Your task to perform on an android device: search for starred emails in the gmail app Image 0: 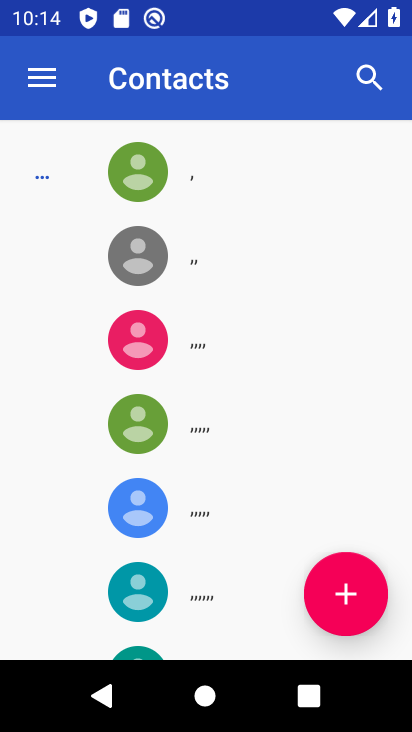
Step 0: press home button
Your task to perform on an android device: search for starred emails in the gmail app Image 1: 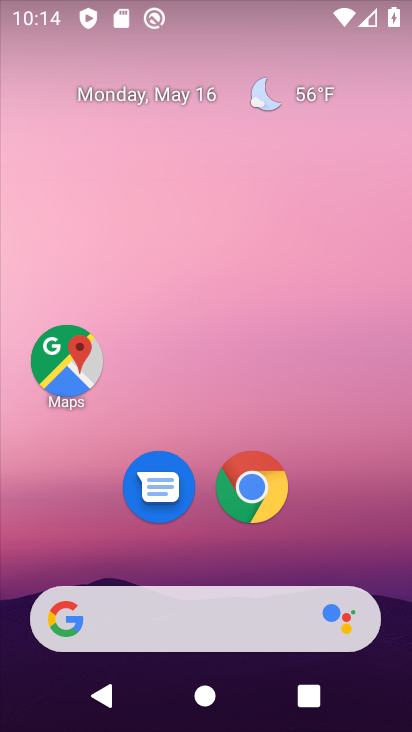
Step 1: drag from (304, 324) to (317, 135)
Your task to perform on an android device: search for starred emails in the gmail app Image 2: 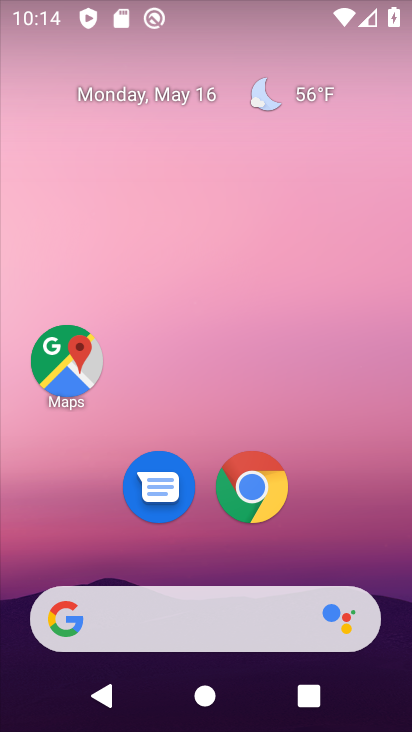
Step 2: drag from (293, 543) to (203, 151)
Your task to perform on an android device: search for starred emails in the gmail app Image 3: 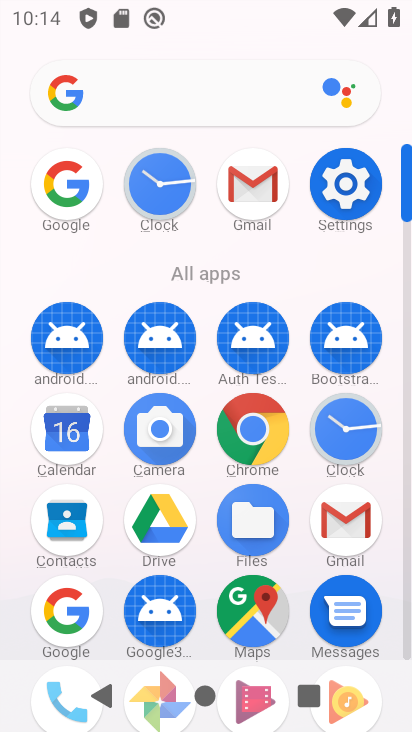
Step 3: click (255, 189)
Your task to perform on an android device: search for starred emails in the gmail app Image 4: 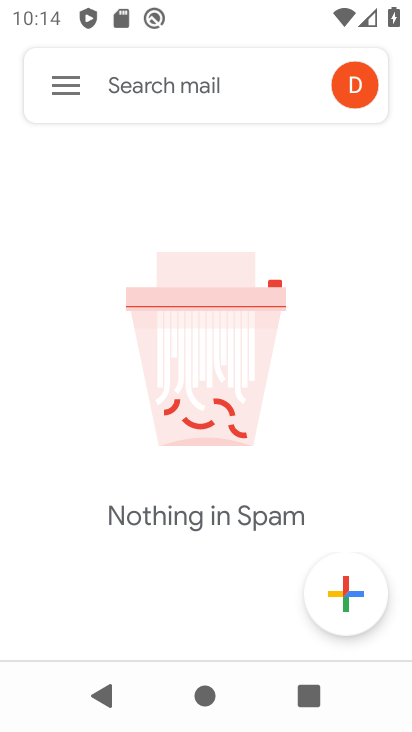
Step 4: click (63, 91)
Your task to perform on an android device: search for starred emails in the gmail app Image 5: 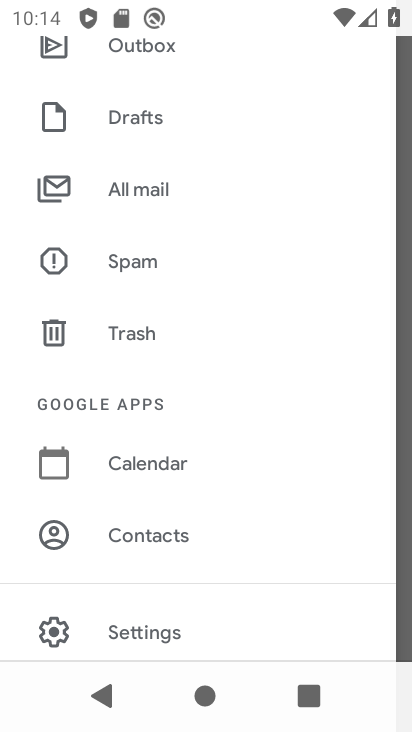
Step 5: drag from (136, 455) to (101, 591)
Your task to perform on an android device: search for starred emails in the gmail app Image 6: 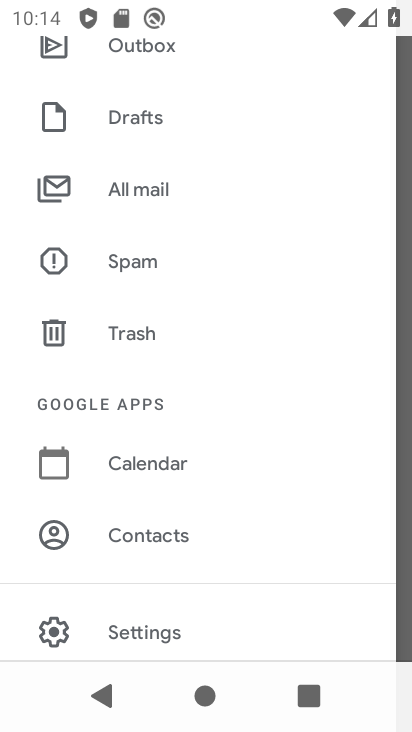
Step 6: drag from (153, 660) to (136, 729)
Your task to perform on an android device: search for starred emails in the gmail app Image 7: 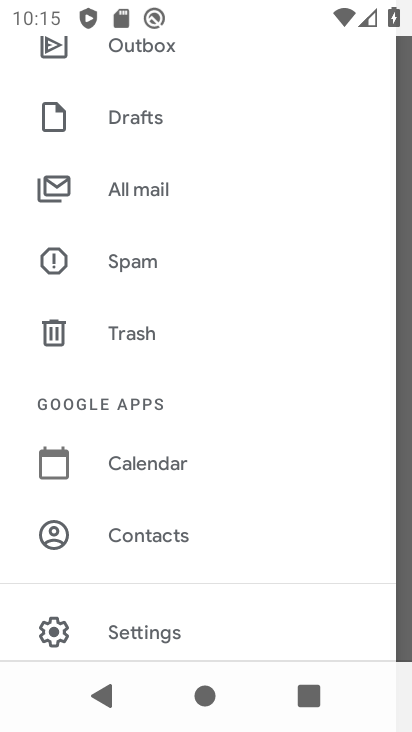
Step 7: drag from (186, 226) to (163, 651)
Your task to perform on an android device: search for starred emails in the gmail app Image 8: 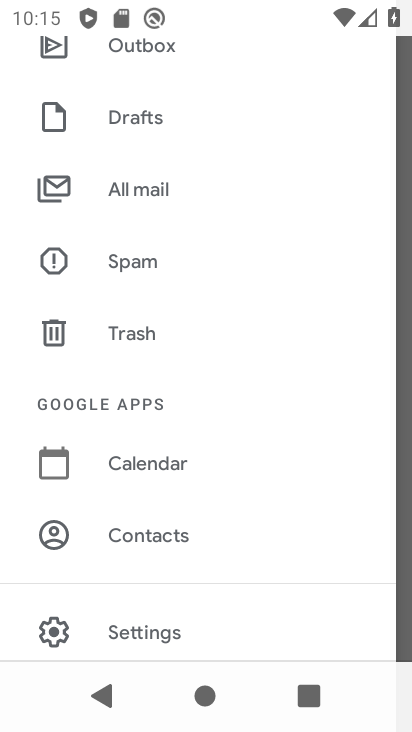
Step 8: drag from (211, 137) to (166, 489)
Your task to perform on an android device: search for starred emails in the gmail app Image 9: 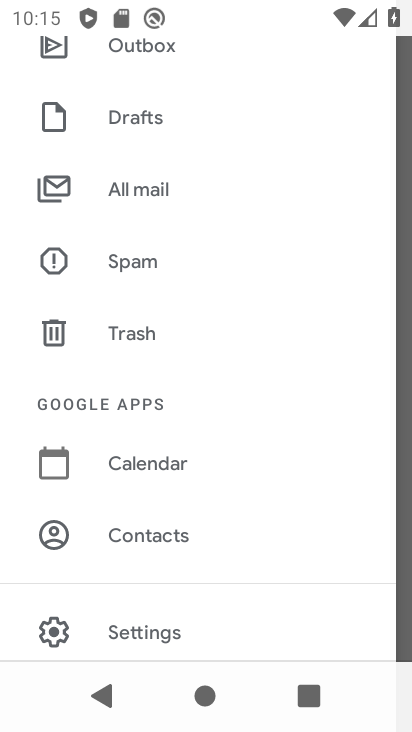
Step 9: drag from (148, 300) to (154, 535)
Your task to perform on an android device: search for starred emails in the gmail app Image 10: 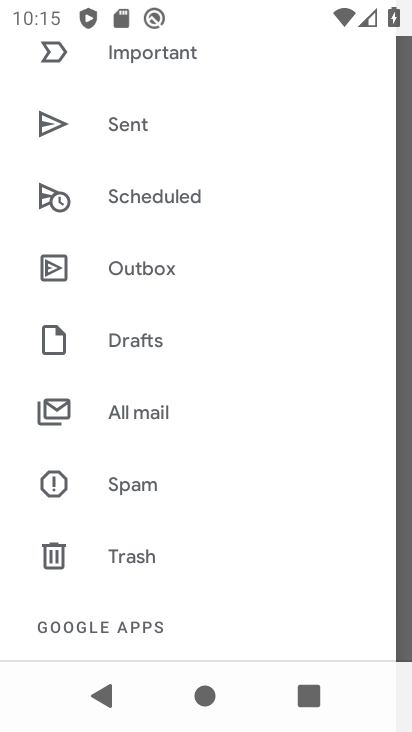
Step 10: drag from (178, 255) to (182, 624)
Your task to perform on an android device: search for starred emails in the gmail app Image 11: 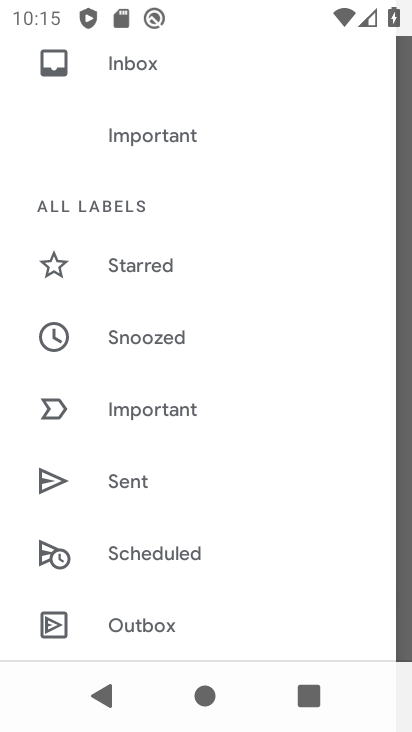
Step 11: click (136, 263)
Your task to perform on an android device: search for starred emails in the gmail app Image 12: 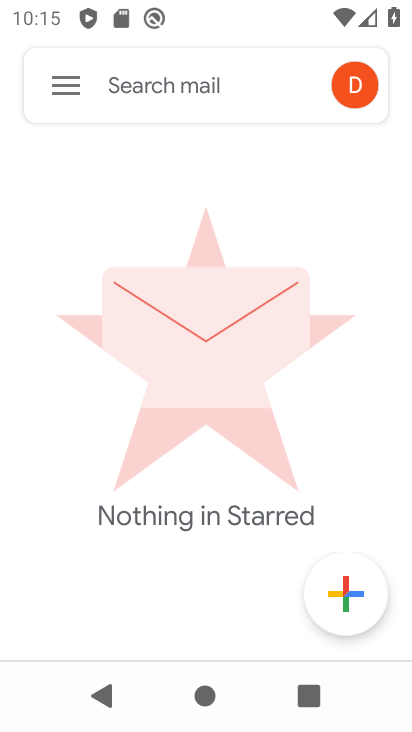
Step 12: task complete